Your task to perform on an android device: Go to location settings Image 0: 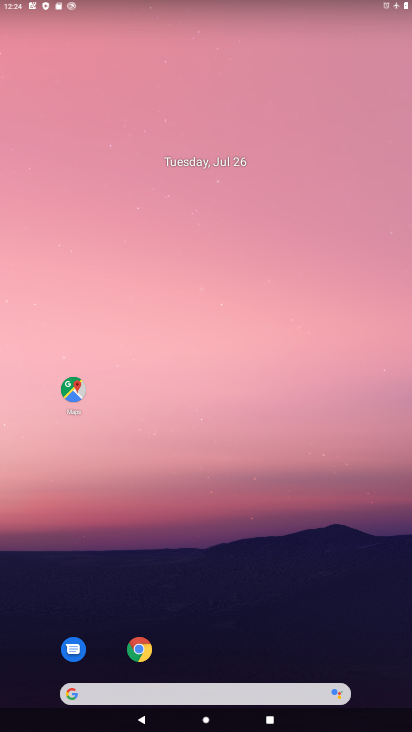
Step 0: drag from (224, 694) to (222, 2)
Your task to perform on an android device: Go to location settings Image 1: 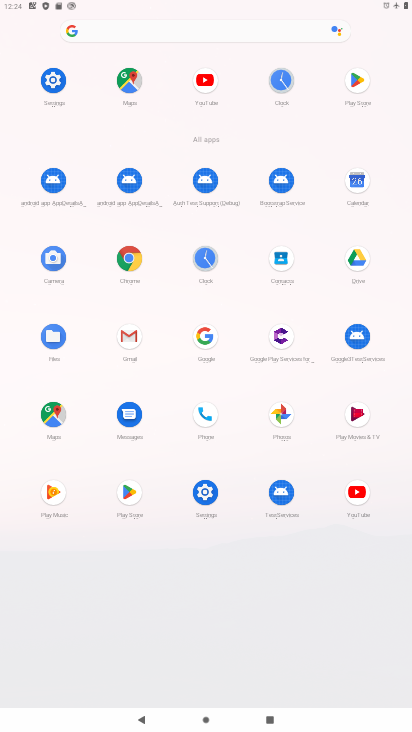
Step 1: click (49, 86)
Your task to perform on an android device: Go to location settings Image 2: 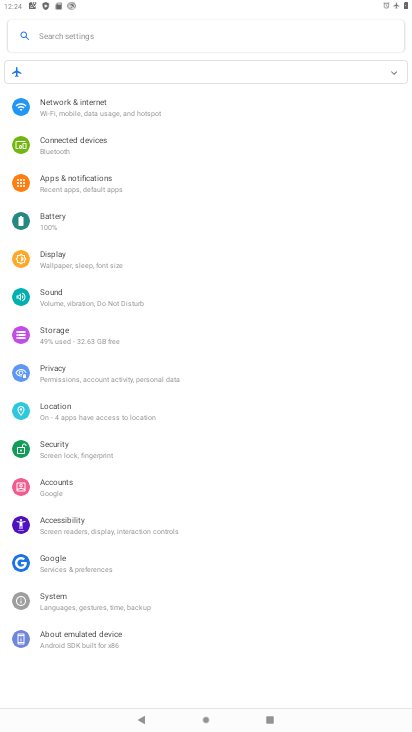
Step 2: click (48, 409)
Your task to perform on an android device: Go to location settings Image 3: 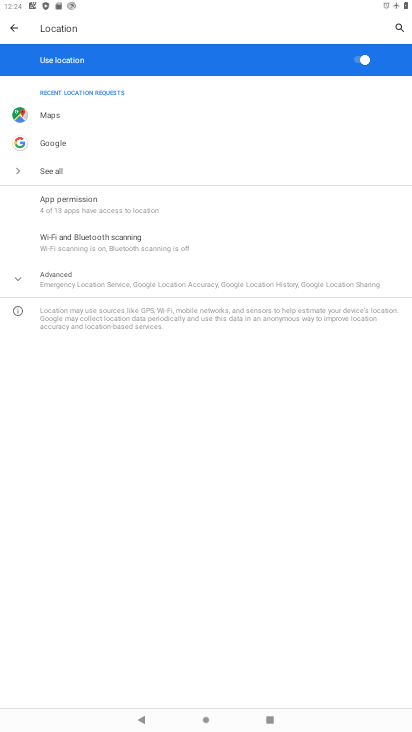
Step 3: task complete